Your task to perform on an android device: toggle notification dots Image 0: 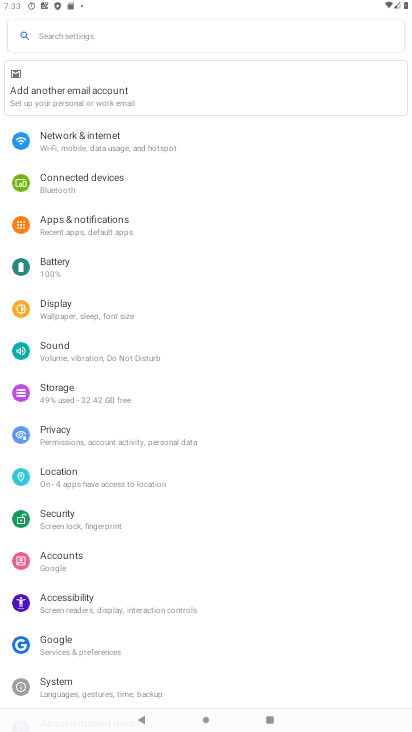
Step 0: press home button
Your task to perform on an android device: toggle notification dots Image 1: 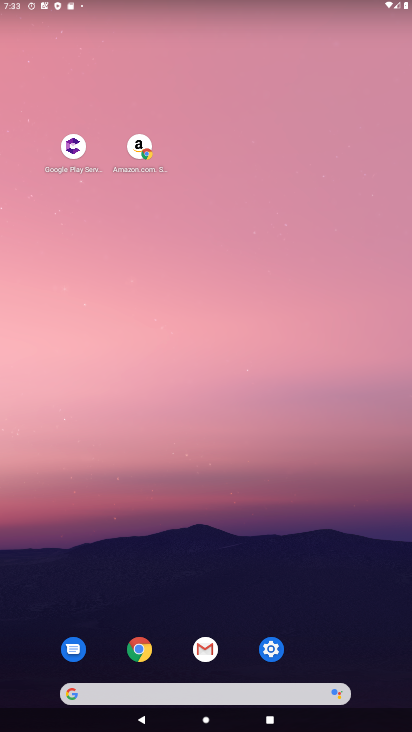
Step 1: click (267, 646)
Your task to perform on an android device: toggle notification dots Image 2: 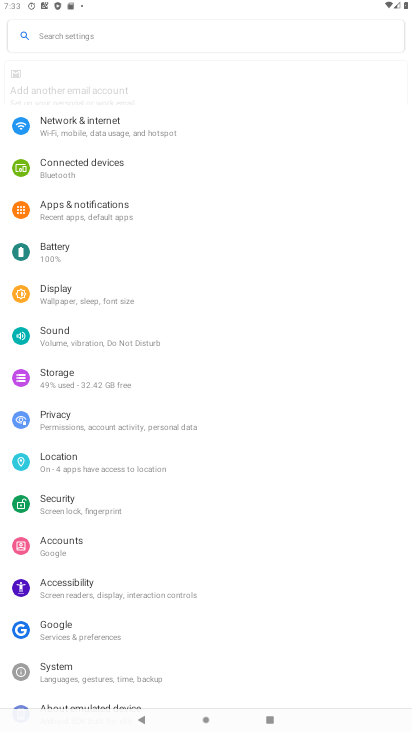
Step 2: click (105, 41)
Your task to perform on an android device: toggle notification dots Image 3: 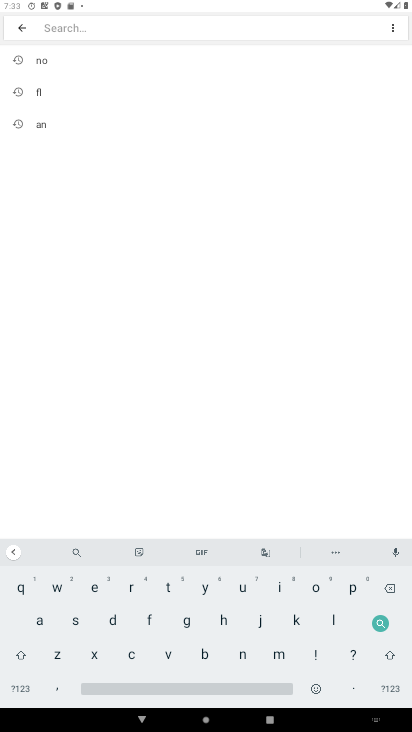
Step 3: click (59, 68)
Your task to perform on an android device: toggle notification dots Image 4: 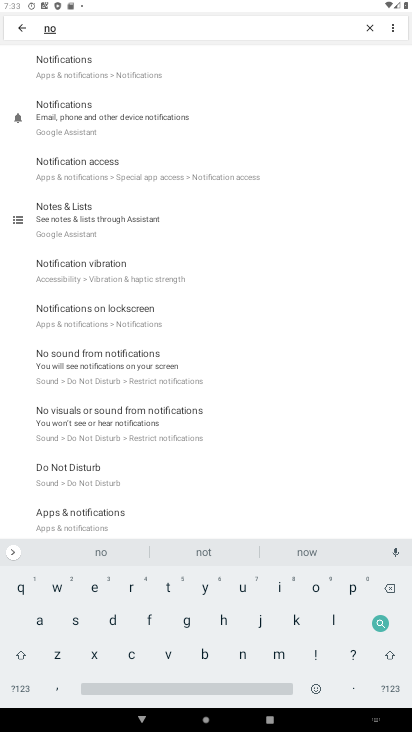
Step 4: click (59, 68)
Your task to perform on an android device: toggle notification dots Image 5: 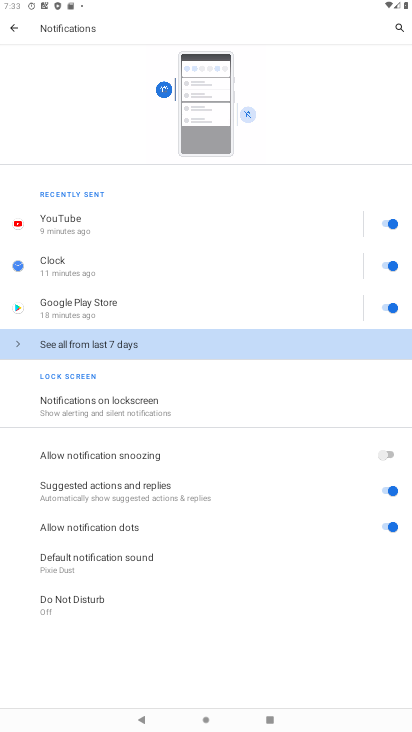
Step 5: click (257, 538)
Your task to perform on an android device: toggle notification dots Image 6: 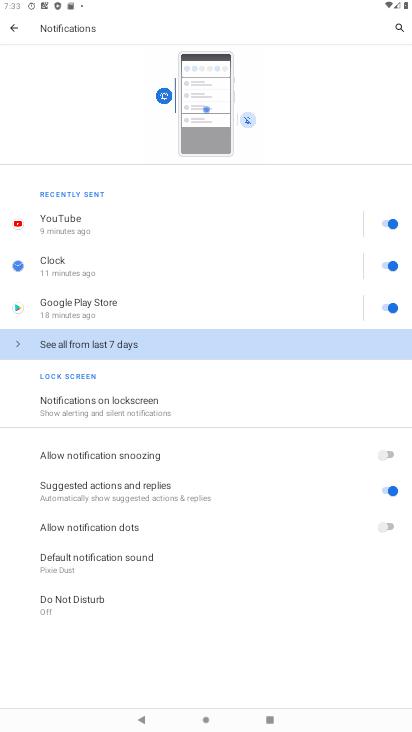
Step 6: click (257, 538)
Your task to perform on an android device: toggle notification dots Image 7: 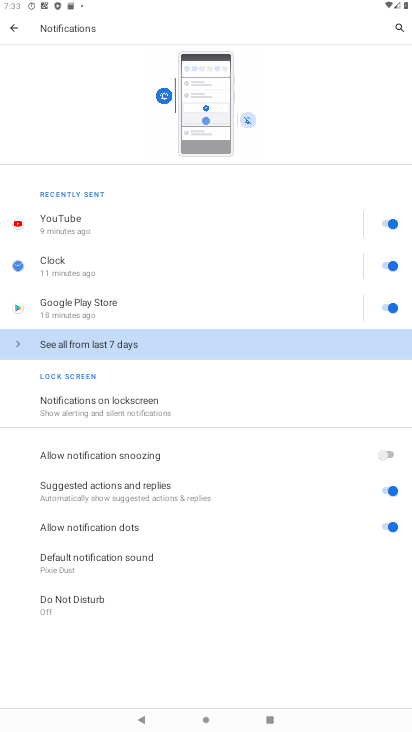
Step 7: task complete